Your task to perform on an android device: open device folders in google photos Image 0: 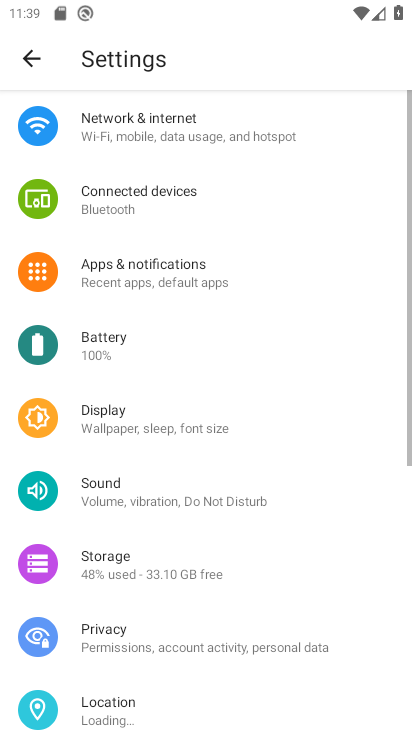
Step 0: press back button
Your task to perform on an android device: open device folders in google photos Image 1: 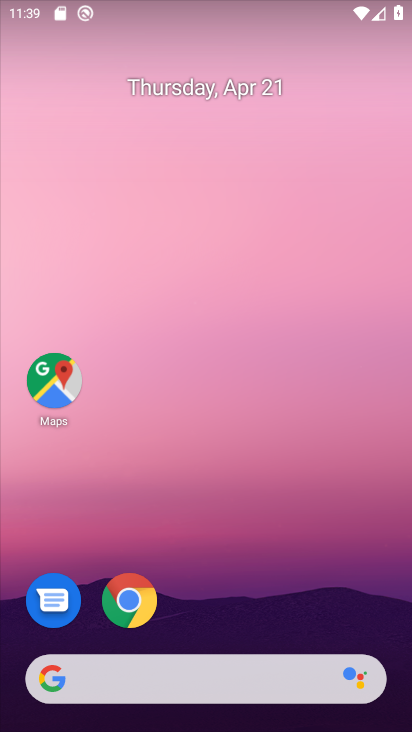
Step 1: drag from (204, 640) to (309, 66)
Your task to perform on an android device: open device folders in google photos Image 2: 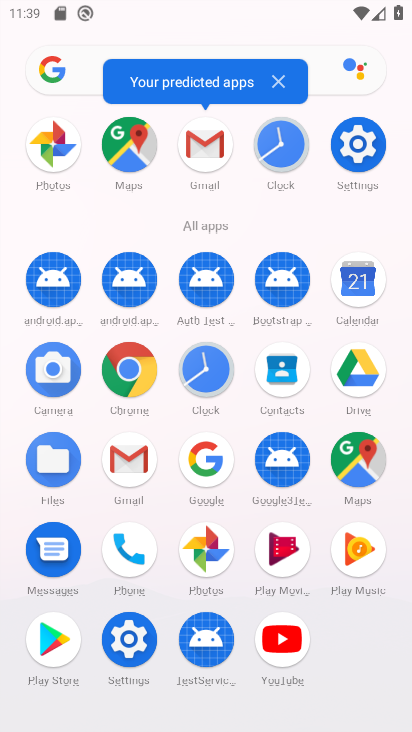
Step 2: click (208, 557)
Your task to perform on an android device: open device folders in google photos Image 3: 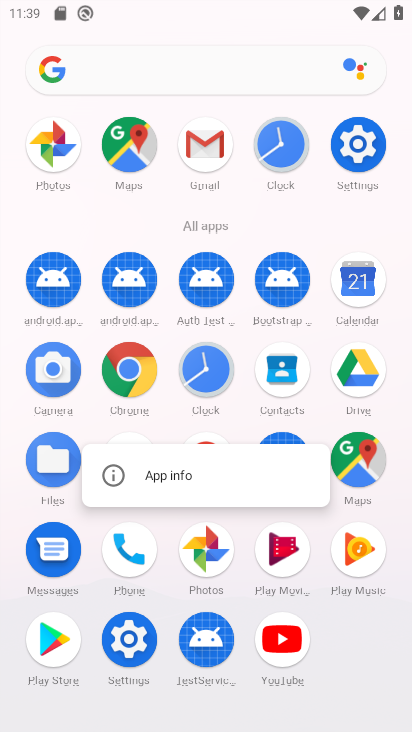
Step 3: click (209, 557)
Your task to perform on an android device: open device folders in google photos Image 4: 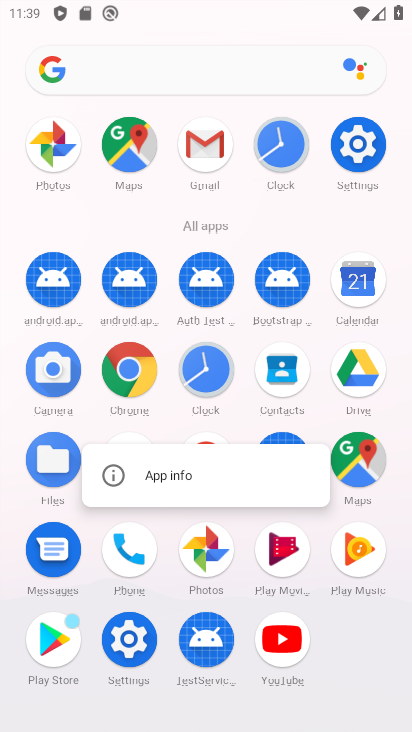
Step 4: click (209, 557)
Your task to perform on an android device: open device folders in google photos Image 5: 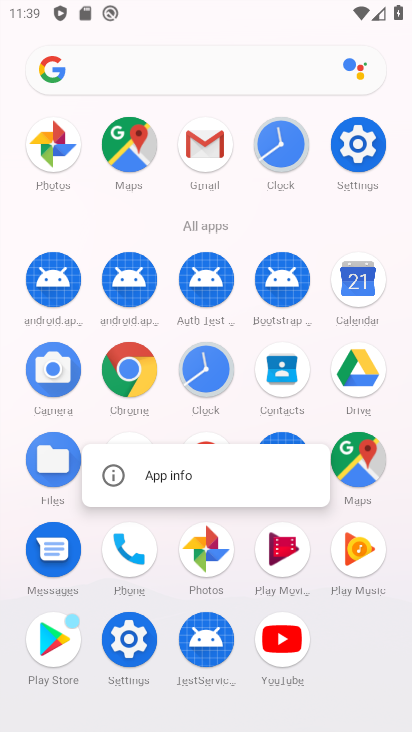
Step 5: click (197, 548)
Your task to perform on an android device: open device folders in google photos Image 6: 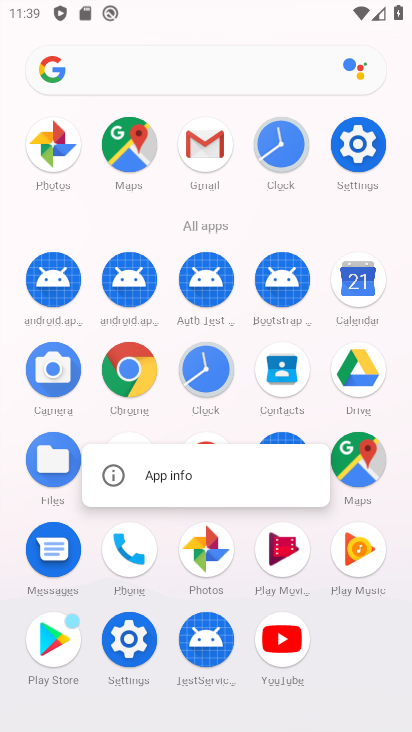
Step 6: click (206, 536)
Your task to perform on an android device: open device folders in google photos Image 7: 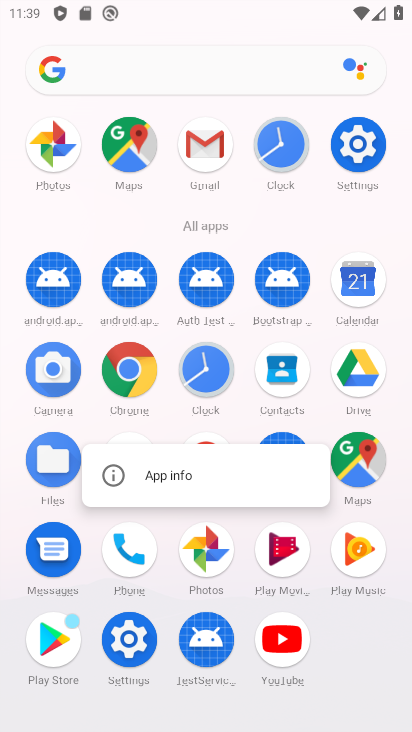
Step 7: click (212, 557)
Your task to perform on an android device: open device folders in google photos Image 8: 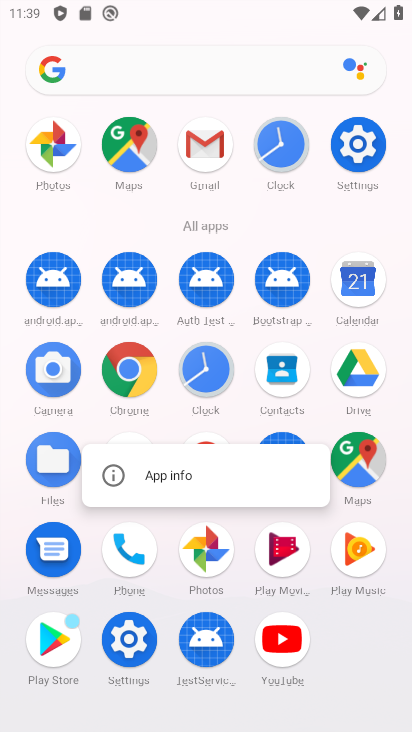
Step 8: click (202, 550)
Your task to perform on an android device: open device folders in google photos Image 9: 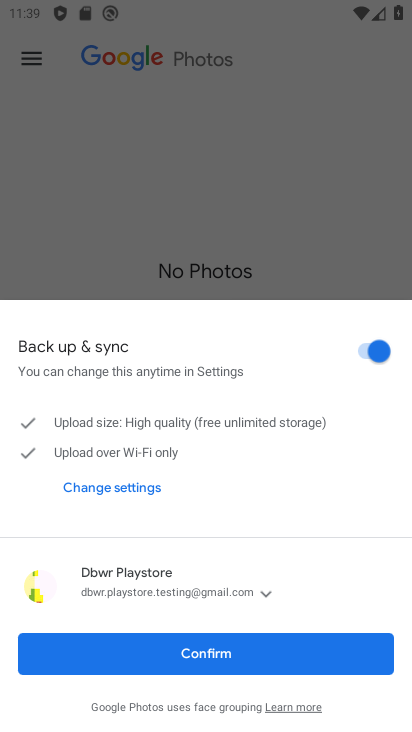
Step 9: click (216, 661)
Your task to perform on an android device: open device folders in google photos Image 10: 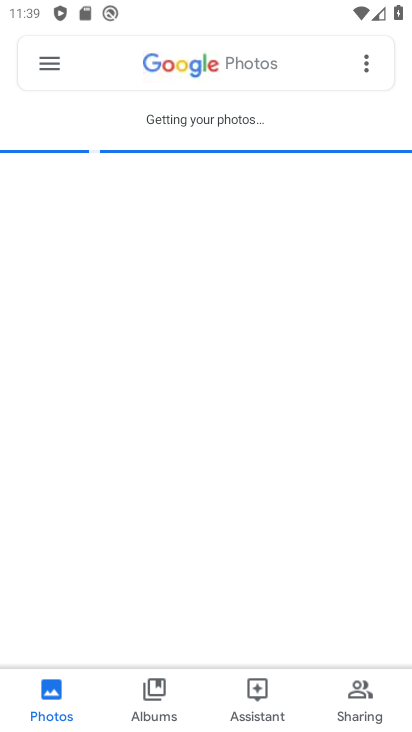
Step 10: click (25, 58)
Your task to perform on an android device: open device folders in google photos Image 11: 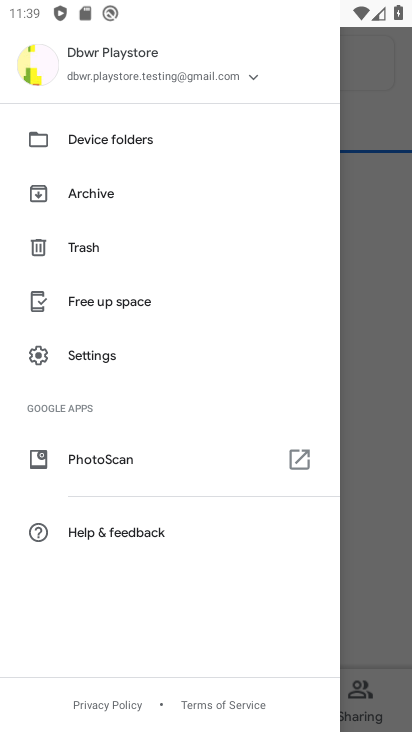
Step 11: click (156, 144)
Your task to perform on an android device: open device folders in google photos Image 12: 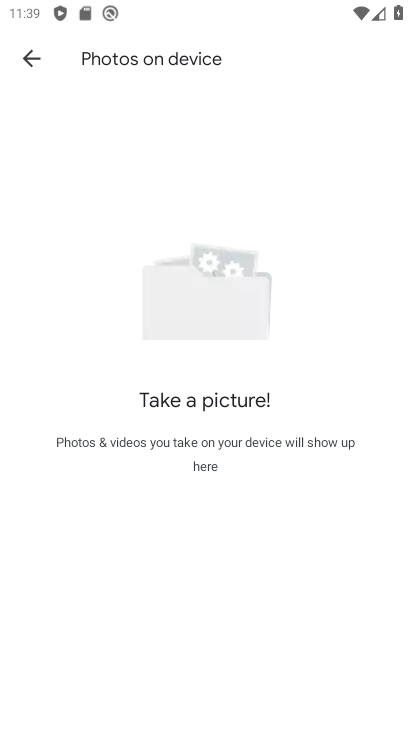
Step 12: task complete